Your task to perform on an android device: Go to sound settings Image 0: 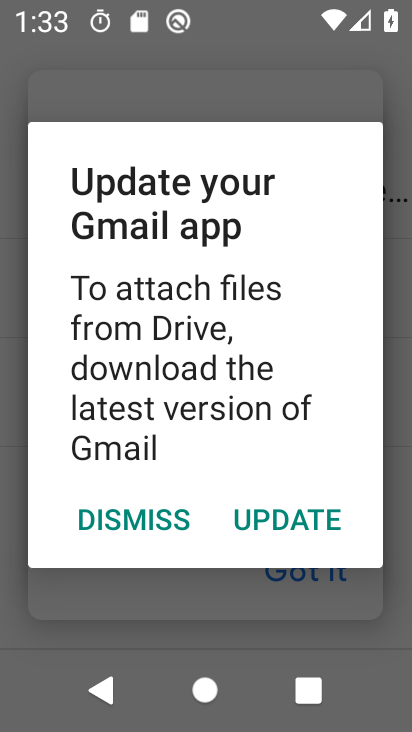
Step 0: press home button
Your task to perform on an android device: Go to sound settings Image 1: 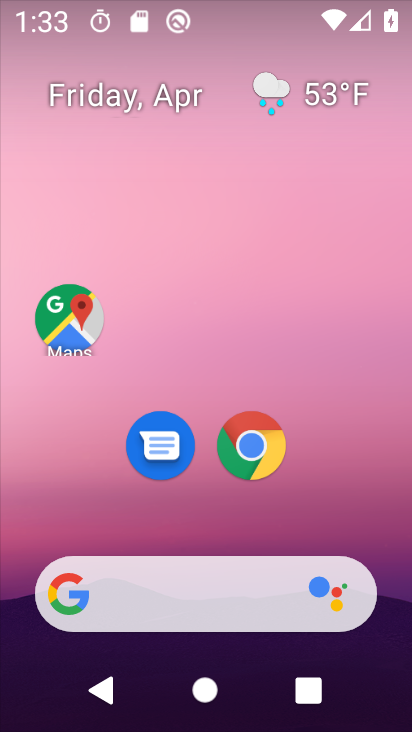
Step 1: drag from (354, 502) to (389, 143)
Your task to perform on an android device: Go to sound settings Image 2: 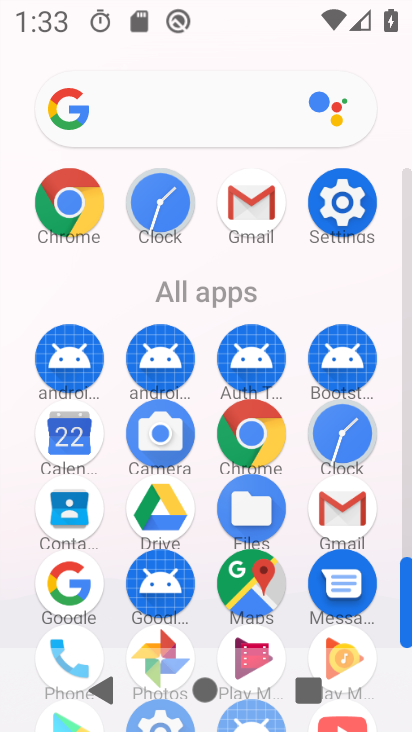
Step 2: click (358, 201)
Your task to perform on an android device: Go to sound settings Image 3: 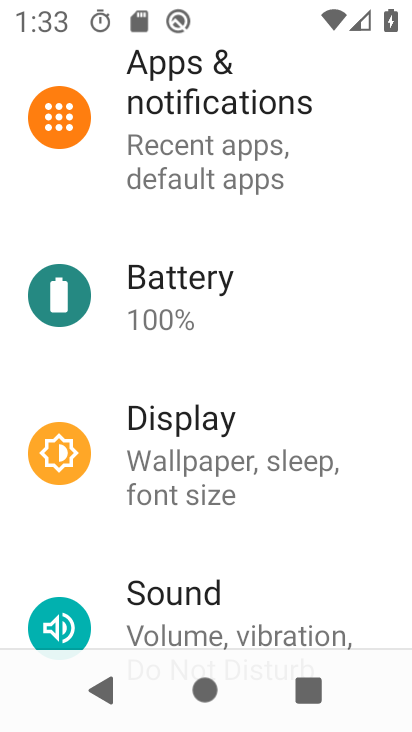
Step 3: drag from (371, 291) to (368, 421)
Your task to perform on an android device: Go to sound settings Image 4: 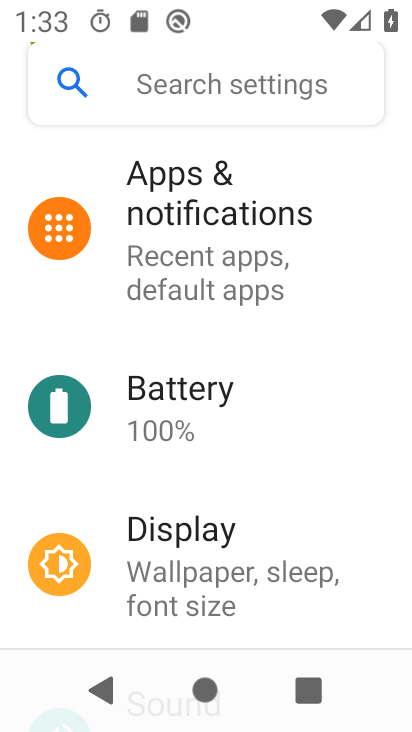
Step 4: drag from (374, 220) to (362, 398)
Your task to perform on an android device: Go to sound settings Image 5: 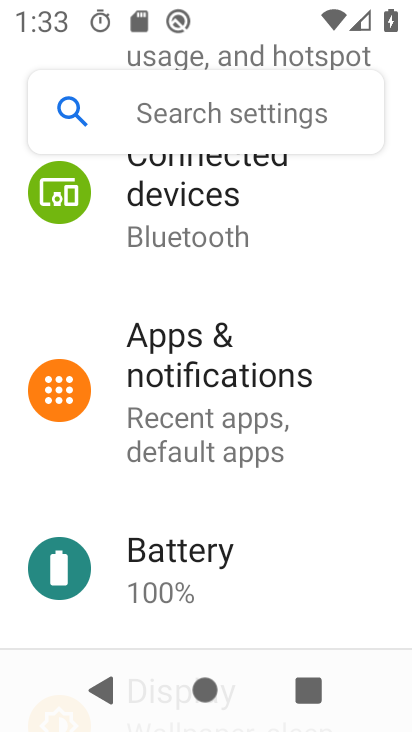
Step 5: drag from (356, 253) to (372, 448)
Your task to perform on an android device: Go to sound settings Image 6: 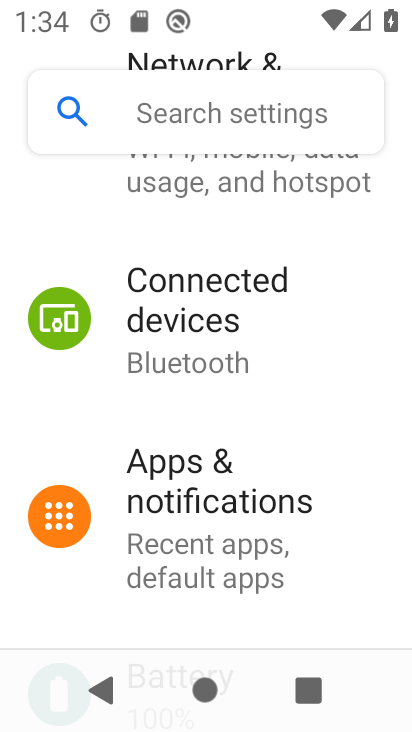
Step 6: drag from (360, 289) to (351, 458)
Your task to perform on an android device: Go to sound settings Image 7: 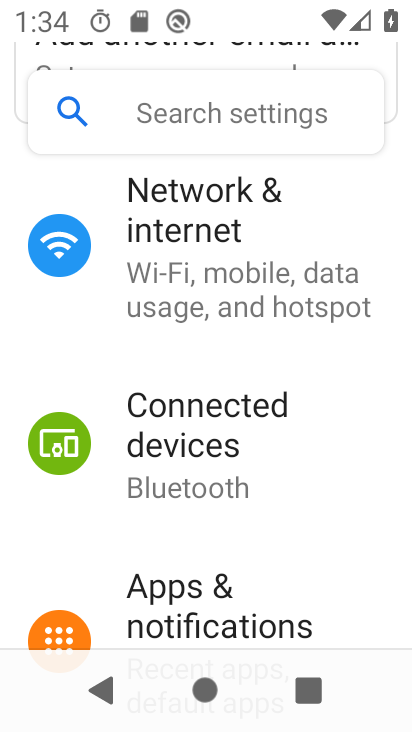
Step 7: drag from (384, 235) to (377, 410)
Your task to perform on an android device: Go to sound settings Image 8: 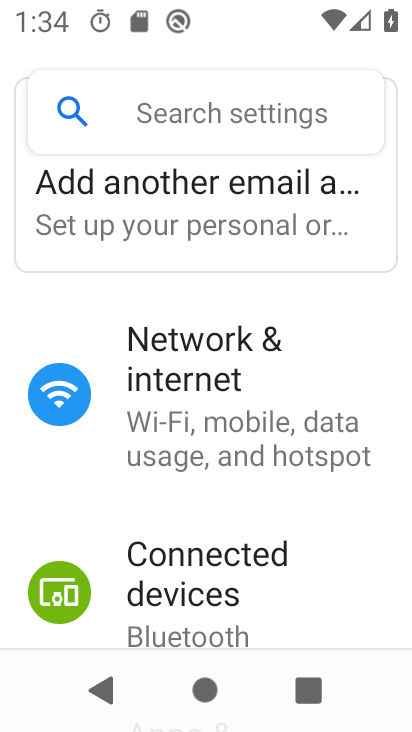
Step 8: drag from (317, 548) to (308, 386)
Your task to perform on an android device: Go to sound settings Image 9: 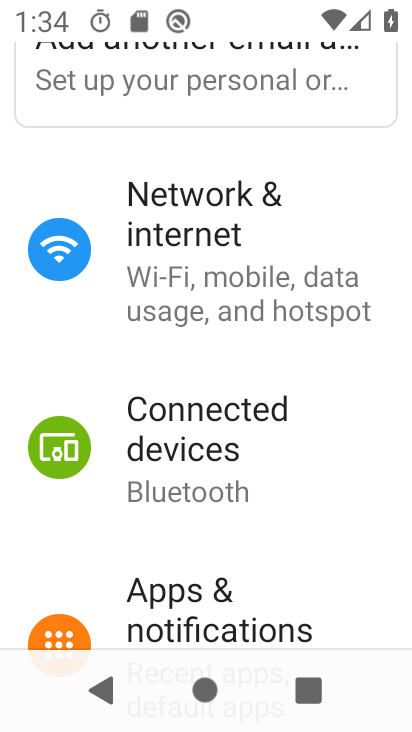
Step 9: drag from (343, 543) to (345, 385)
Your task to perform on an android device: Go to sound settings Image 10: 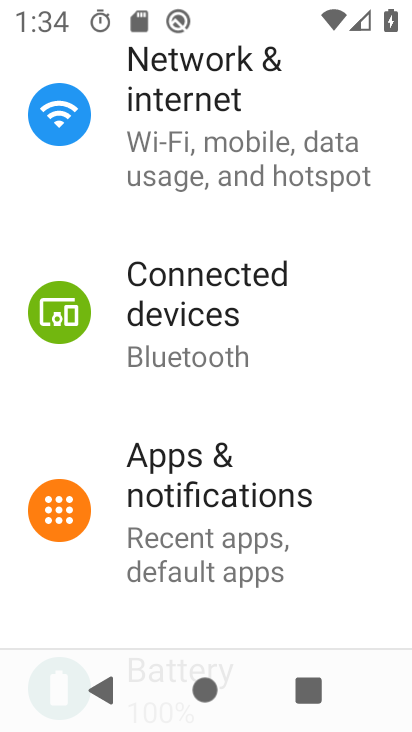
Step 10: drag from (332, 584) to (361, 421)
Your task to perform on an android device: Go to sound settings Image 11: 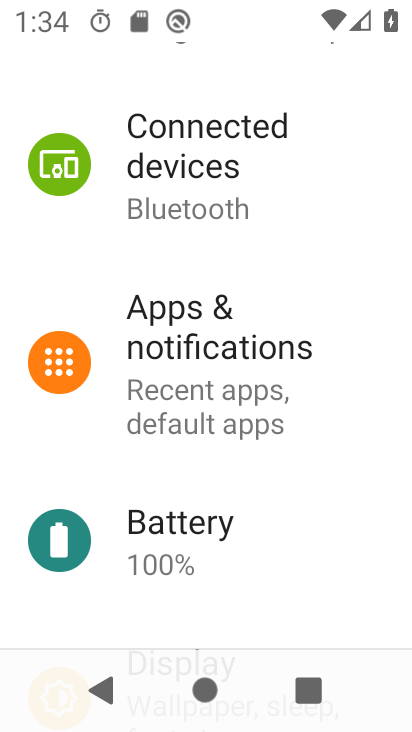
Step 11: drag from (345, 575) to (348, 392)
Your task to perform on an android device: Go to sound settings Image 12: 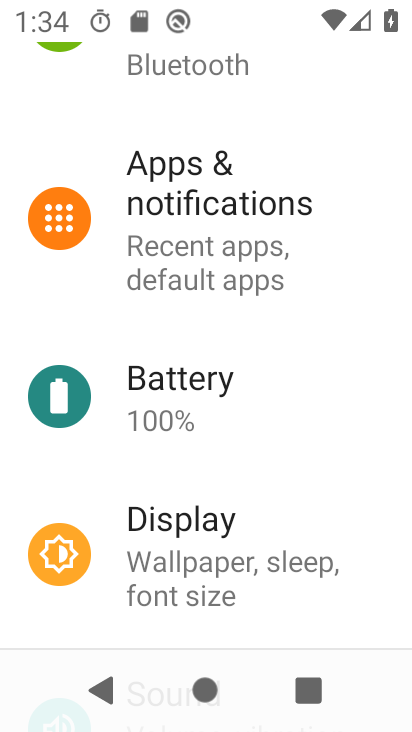
Step 12: drag from (359, 605) to (356, 399)
Your task to perform on an android device: Go to sound settings Image 13: 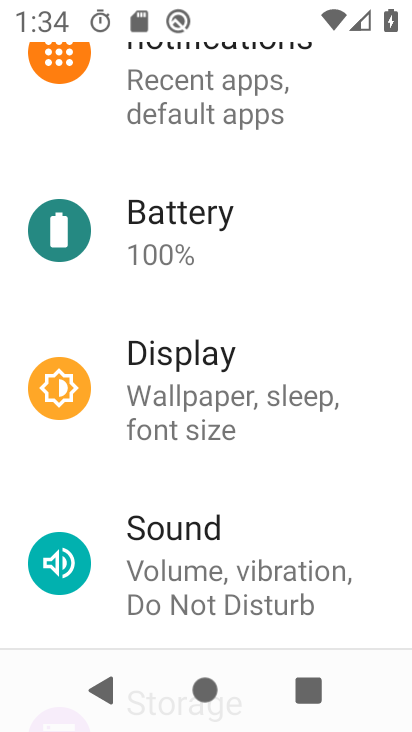
Step 13: drag from (355, 606) to (367, 422)
Your task to perform on an android device: Go to sound settings Image 14: 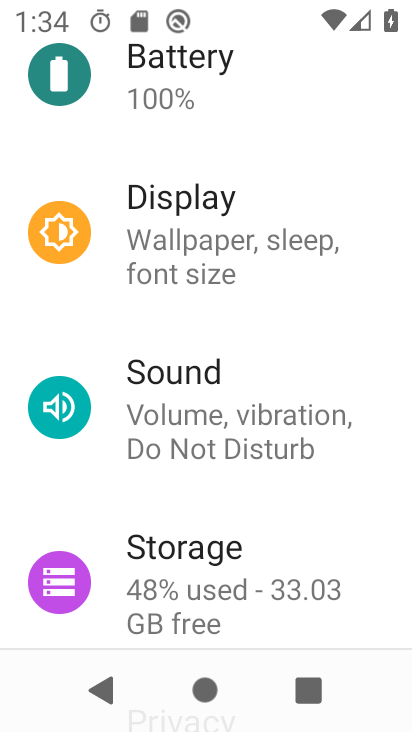
Step 14: click (321, 426)
Your task to perform on an android device: Go to sound settings Image 15: 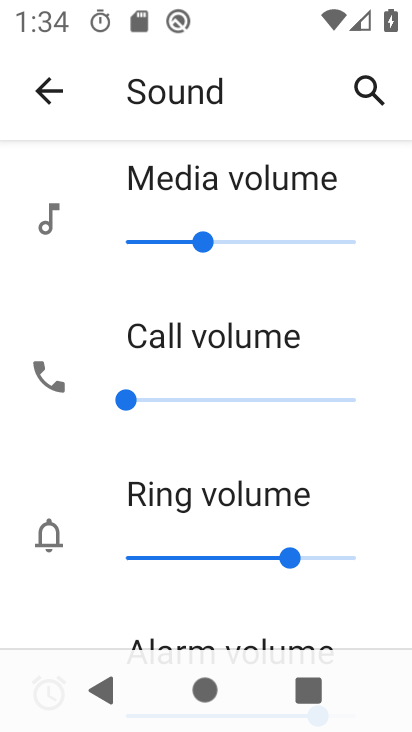
Step 15: task complete